Your task to perform on an android device: Go to Reddit.com Image 0: 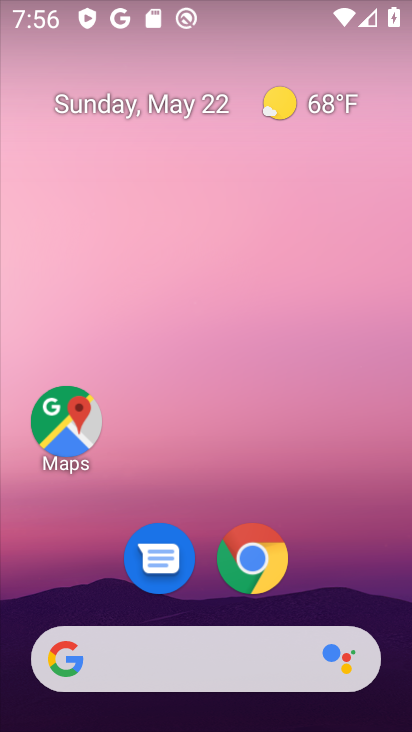
Step 0: click (312, 272)
Your task to perform on an android device: Go to Reddit.com Image 1: 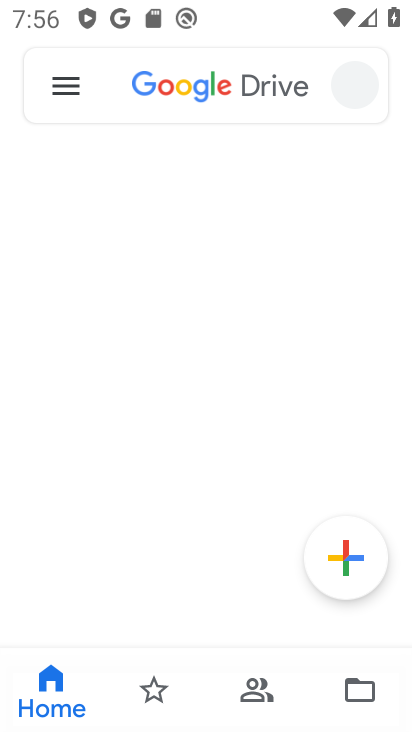
Step 1: drag from (189, 581) to (205, 373)
Your task to perform on an android device: Go to Reddit.com Image 2: 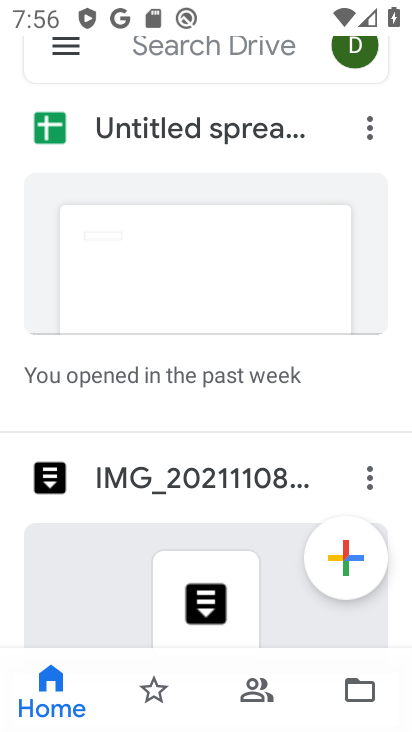
Step 2: press home button
Your task to perform on an android device: Go to Reddit.com Image 3: 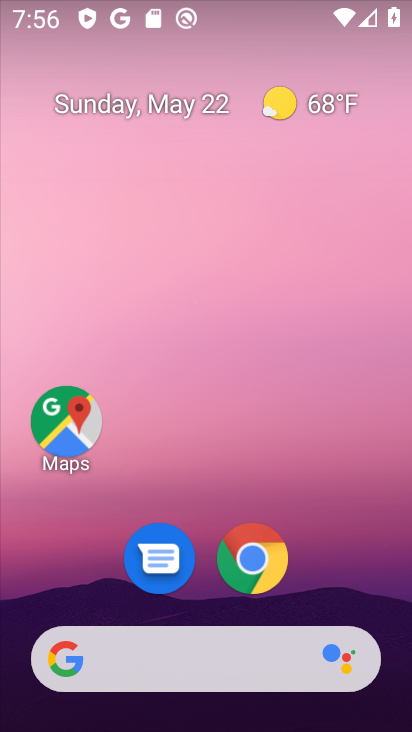
Step 3: click (253, 542)
Your task to perform on an android device: Go to Reddit.com Image 4: 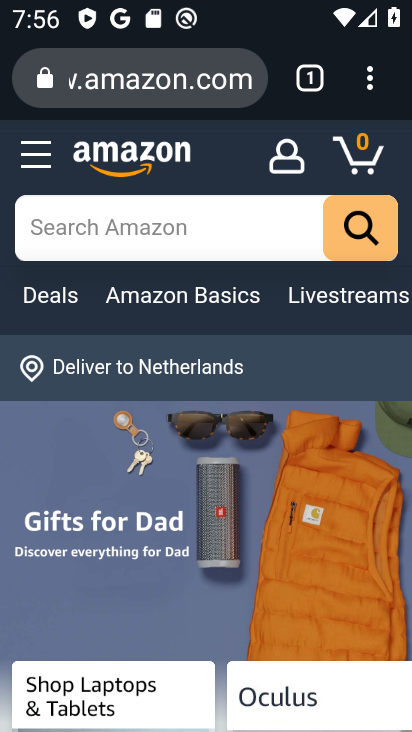
Step 4: click (382, 74)
Your task to perform on an android device: Go to Reddit.com Image 5: 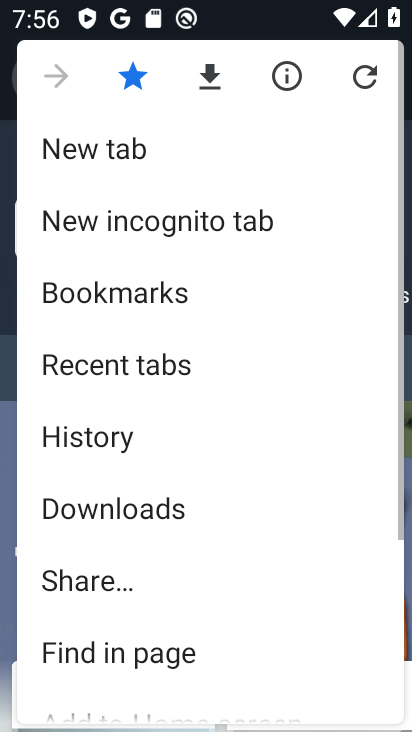
Step 5: click (158, 143)
Your task to perform on an android device: Go to Reddit.com Image 6: 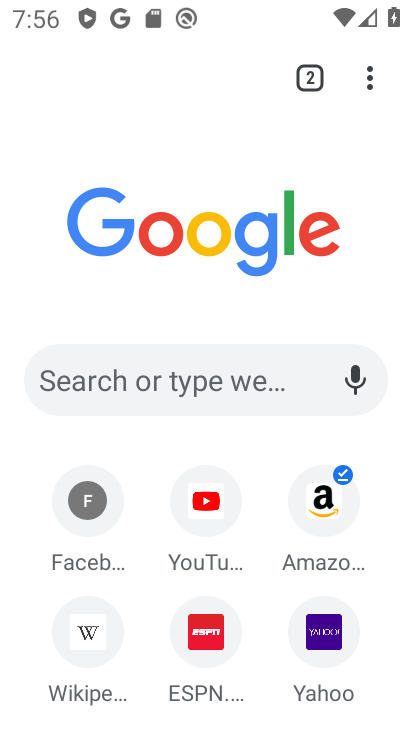
Step 6: click (200, 384)
Your task to perform on an android device: Go to Reddit.com Image 7: 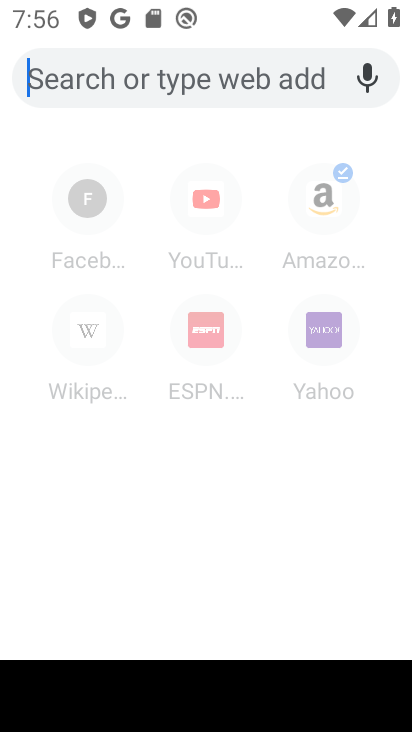
Step 7: type "Reddit.com"
Your task to perform on an android device: Go to Reddit.com Image 8: 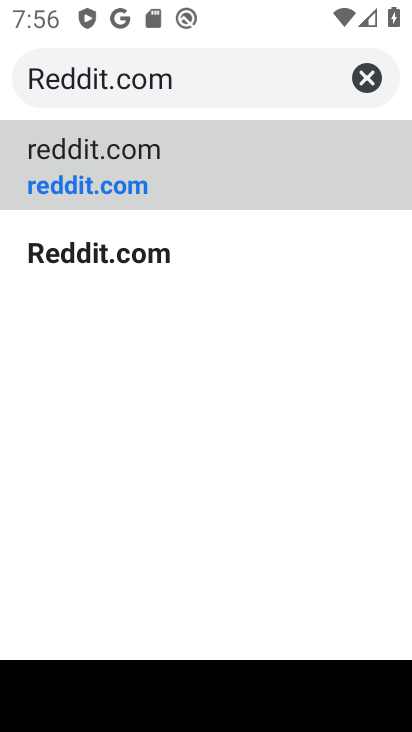
Step 8: click (156, 177)
Your task to perform on an android device: Go to Reddit.com Image 9: 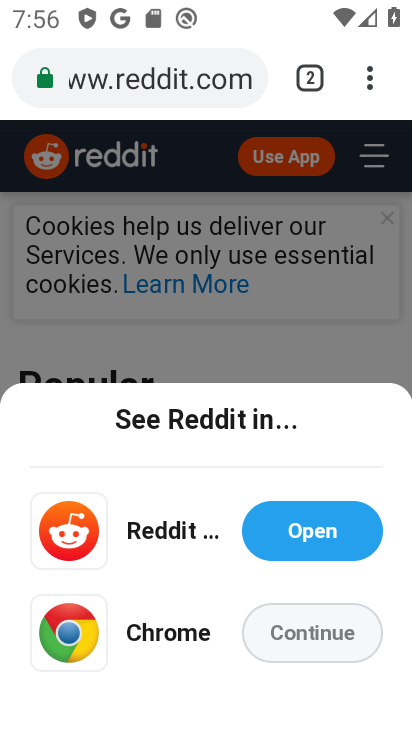
Step 9: task complete